Your task to perform on an android device: change the clock style Image 0: 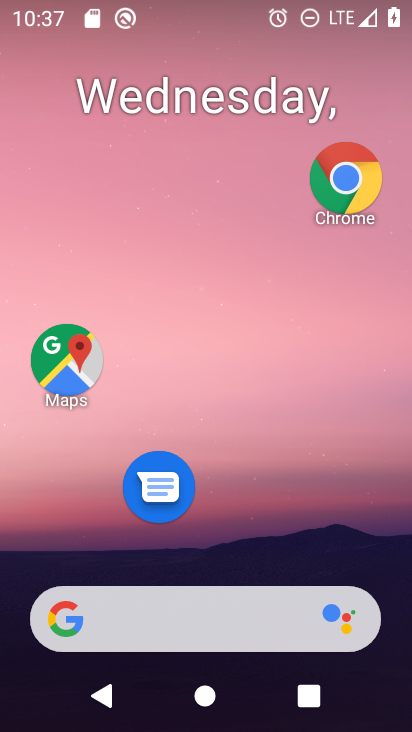
Step 0: drag from (223, 572) to (236, 82)
Your task to perform on an android device: change the clock style Image 1: 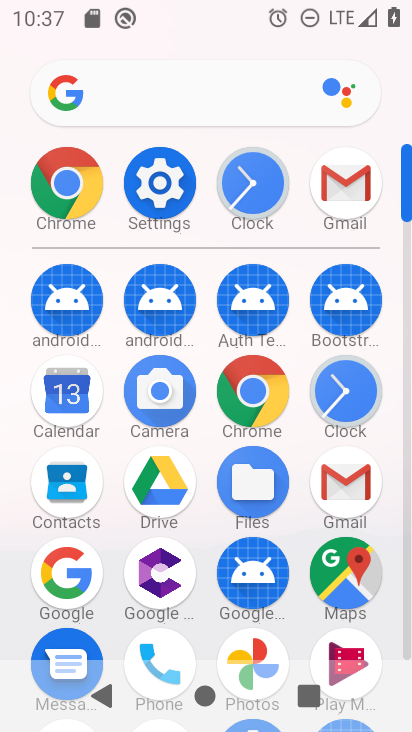
Step 1: click (347, 415)
Your task to perform on an android device: change the clock style Image 2: 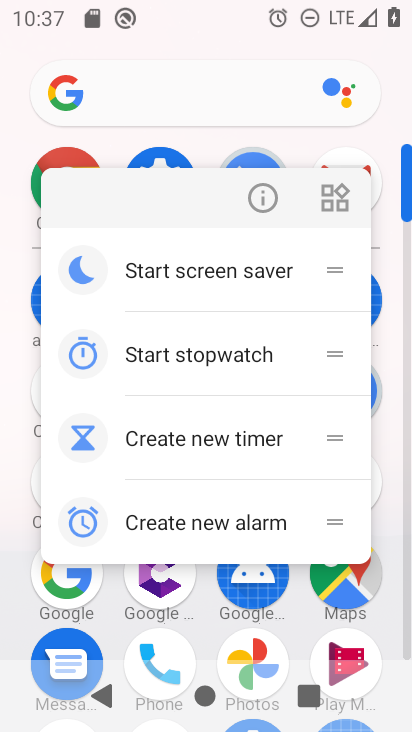
Step 2: click (207, 138)
Your task to perform on an android device: change the clock style Image 3: 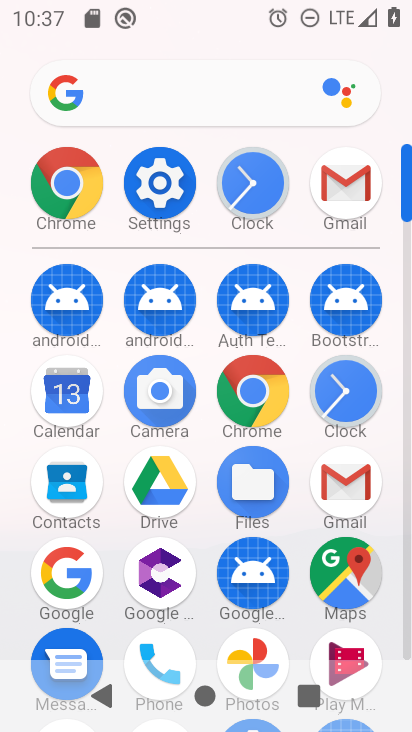
Step 3: drag from (218, 474) to (236, 190)
Your task to perform on an android device: change the clock style Image 4: 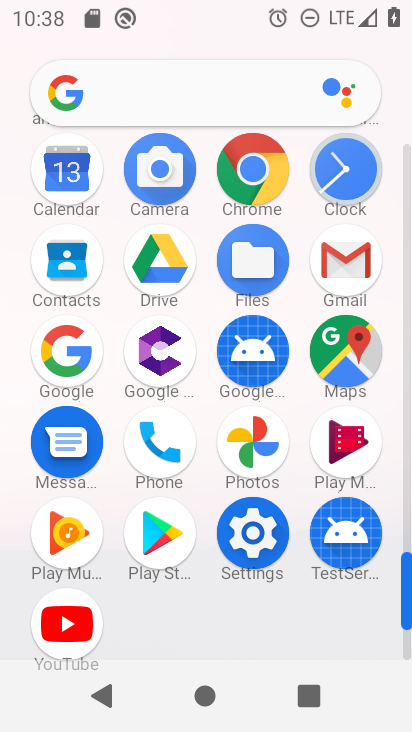
Step 4: click (347, 183)
Your task to perform on an android device: change the clock style Image 5: 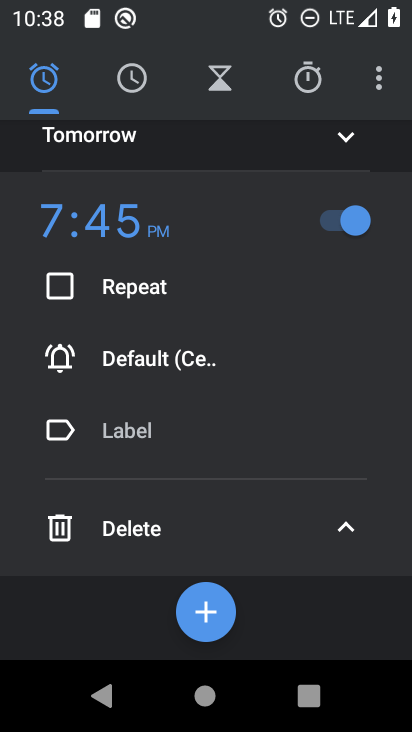
Step 5: click (379, 73)
Your task to perform on an android device: change the clock style Image 6: 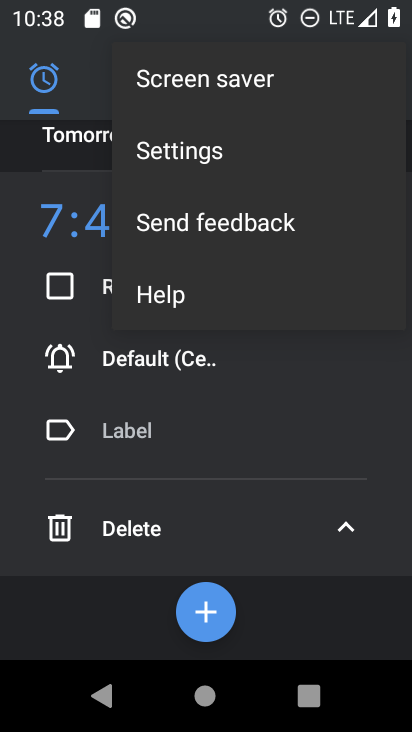
Step 6: click (202, 156)
Your task to perform on an android device: change the clock style Image 7: 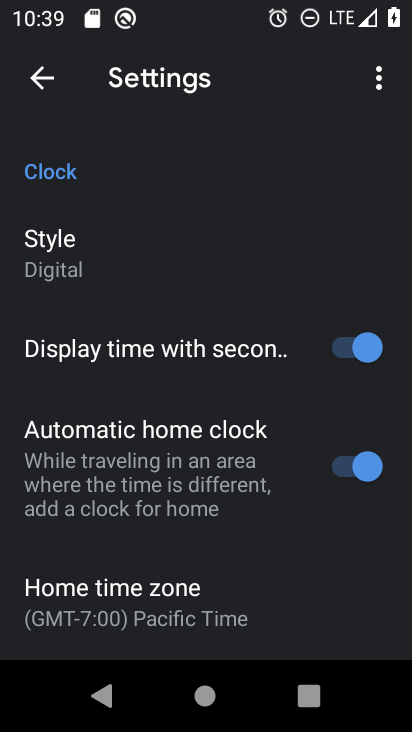
Step 7: click (113, 265)
Your task to perform on an android device: change the clock style Image 8: 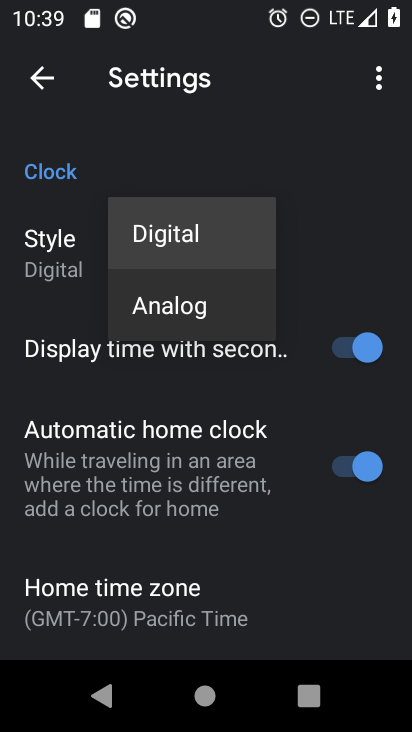
Step 8: click (228, 313)
Your task to perform on an android device: change the clock style Image 9: 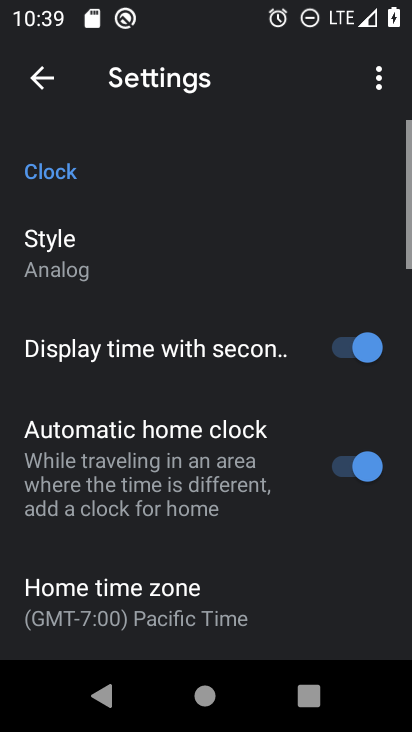
Step 9: task complete